Your task to perform on an android device: Open Google Maps and go to "Timeline" Image 0: 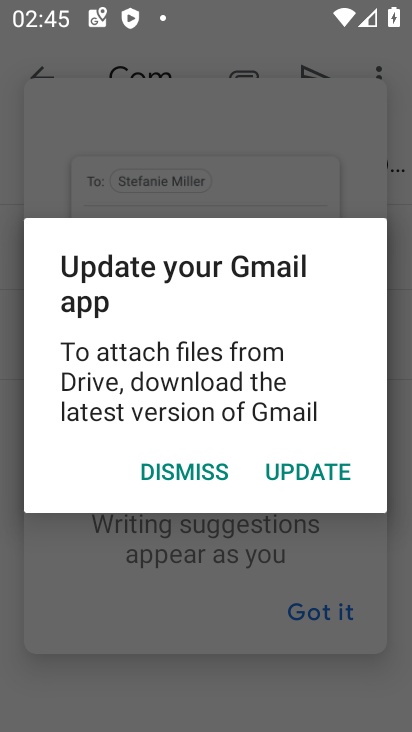
Step 0: press home button
Your task to perform on an android device: Open Google Maps and go to "Timeline" Image 1: 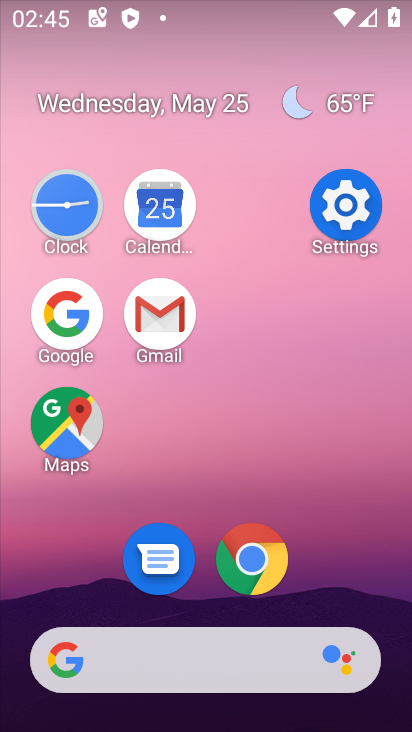
Step 1: click (72, 413)
Your task to perform on an android device: Open Google Maps and go to "Timeline" Image 2: 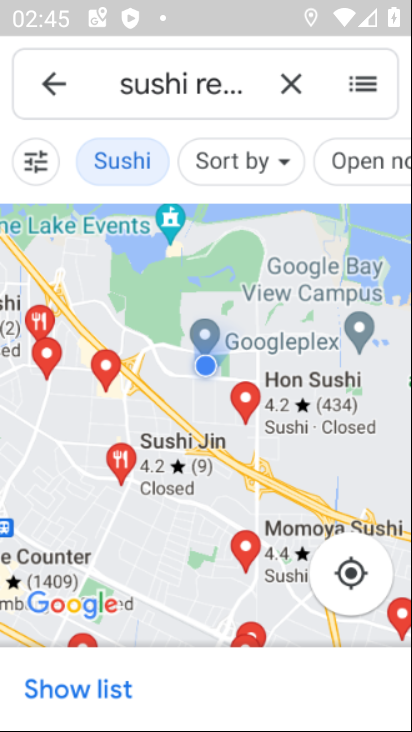
Step 2: click (51, 69)
Your task to perform on an android device: Open Google Maps and go to "Timeline" Image 3: 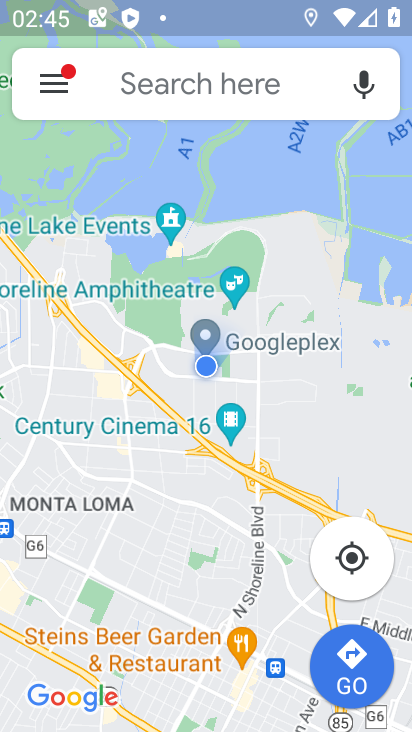
Step 3: click (51, 91)
Your task to perform on an android device: Open Google Maps and go to "Timeline" Image 4: 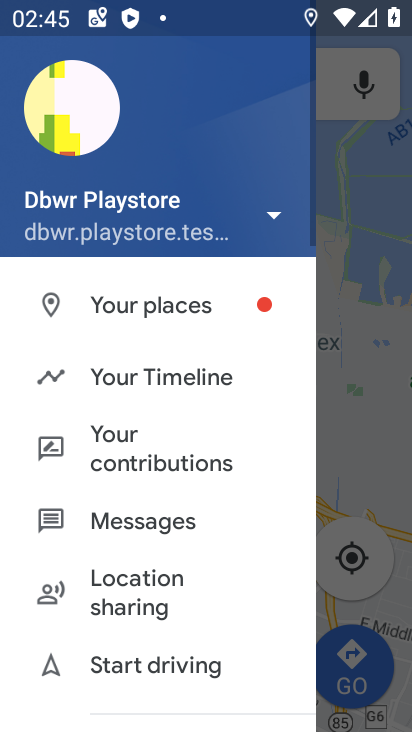
Step 4: click (102, 383)
Your task to perform on an android device: Open Google Maps and go to "Timeline" Image 5: 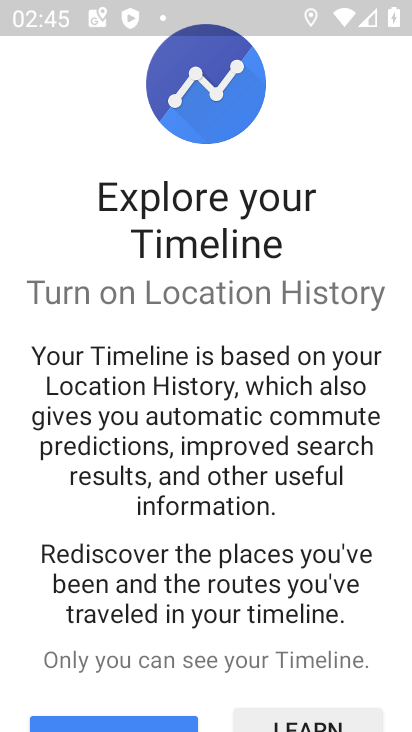
Step 5: drag from (165, 532) to (249, 178)
Your task to perform on an android device: Open Google Maps and go to "Timeline" Image 6: 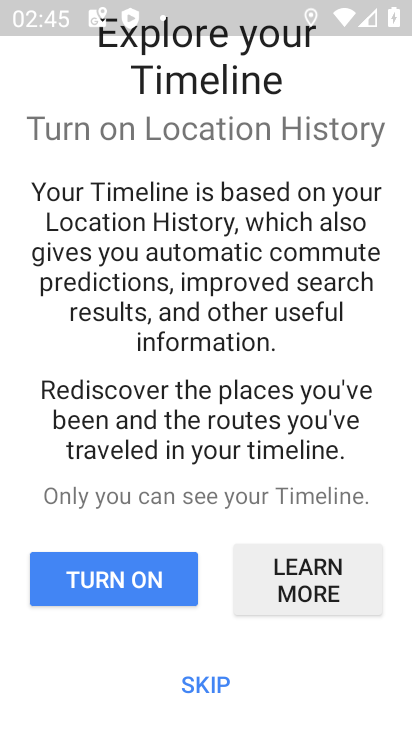
Step 6: click (115, 569)
Your task to perform on an android device: Open Google Maps and go to "Timeline" Image 7: 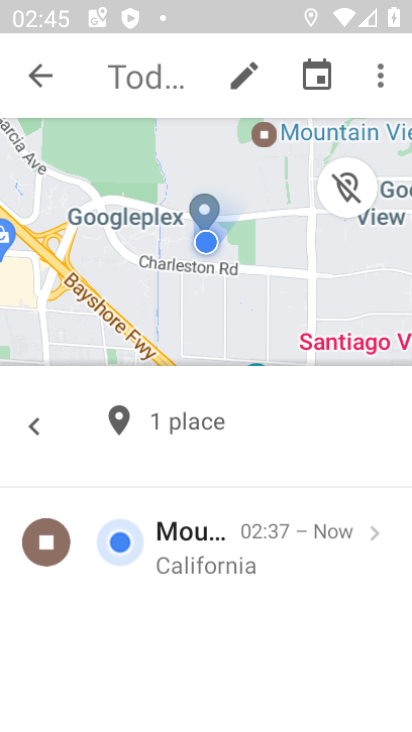
Step 7: task complete